Your task to perform on an android device: turn off wifi Image 0: 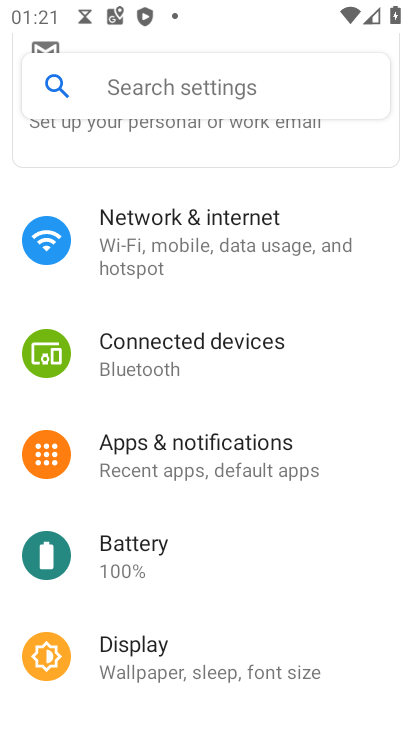
Step 0: press home button
Your task to perform on an android device: turn off wifi Image 1: 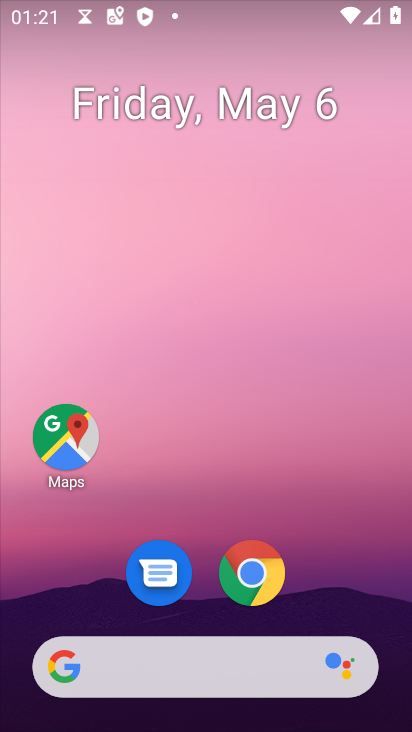
Step 1: drag from (332, 600) to (377, 253)
Your task to perform on an android device: turn off wifi Image 2: 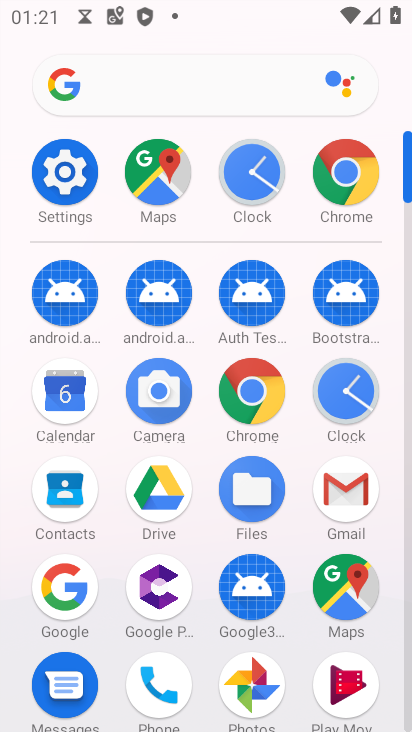
Step 2: click (70, 164)
Your task to perform on an android device: turn off wifi Image 3: 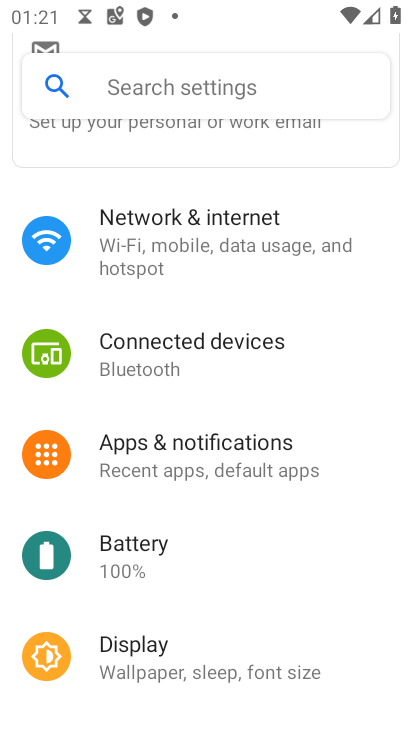
Step 3: click (205, 237)
Your task to perform on an android device: turn off wifi Image 4: 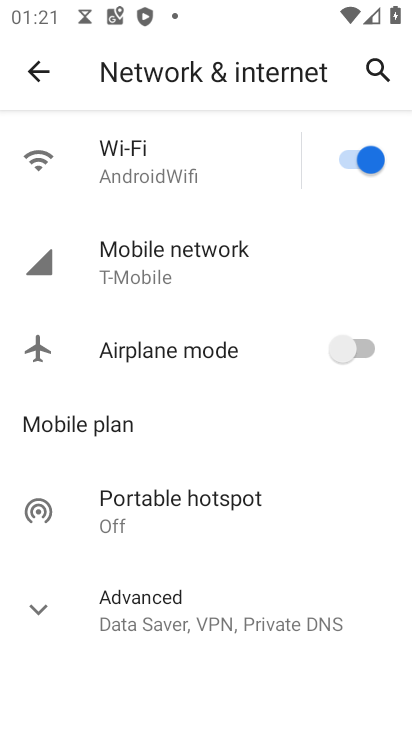
Step 4: click (363, 150)
Your task to perform on an android device: turn off wifi Image 5: 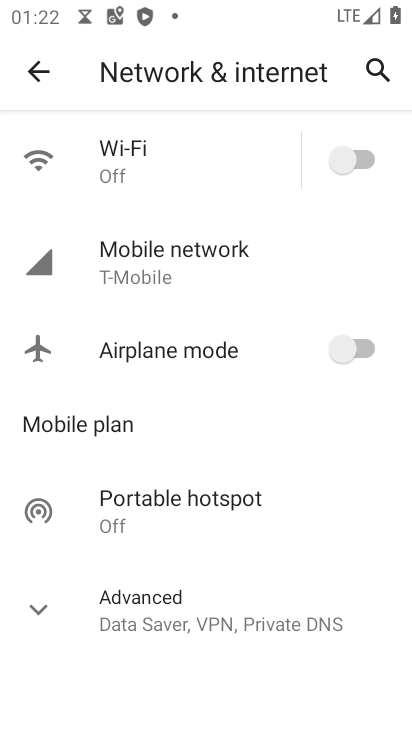
Step 5: task complete